Your task to perform on an android device: turn on translation in the chrome app Image 0: 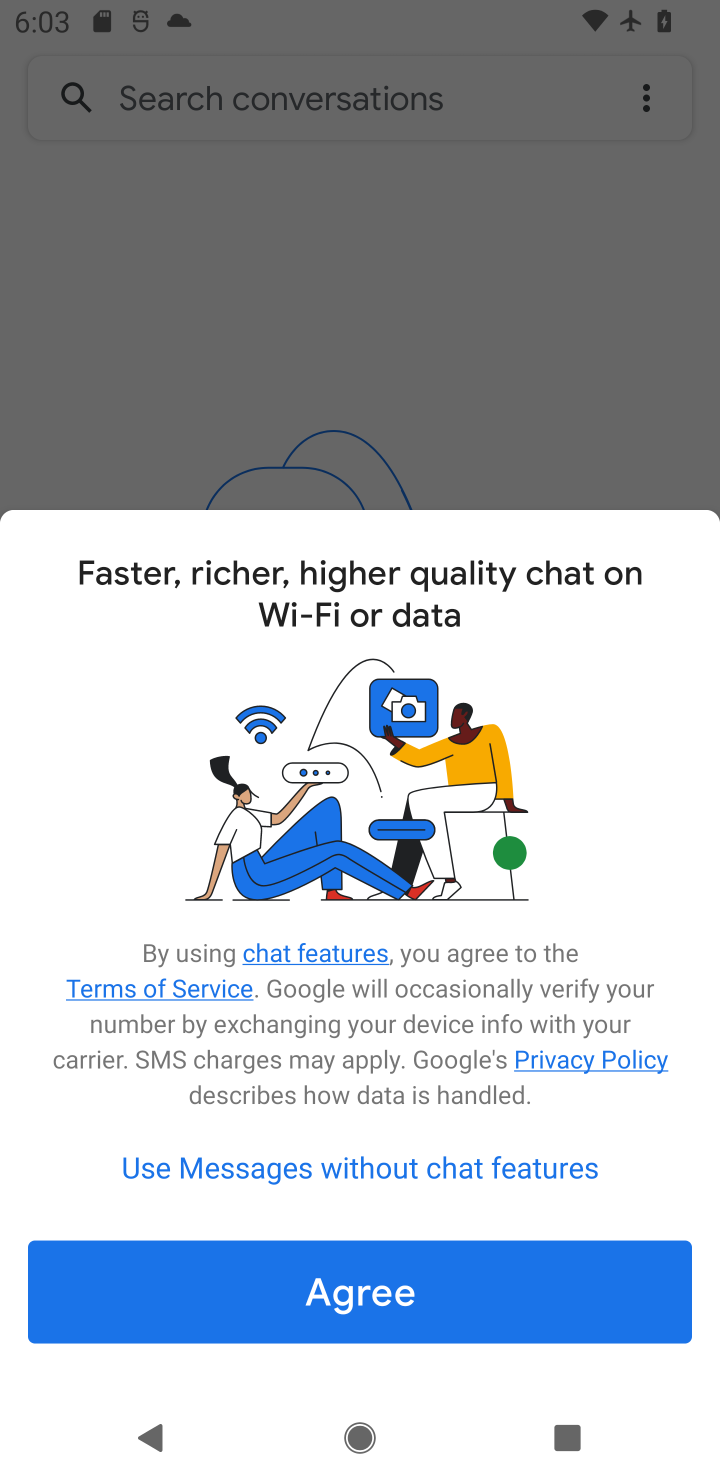
Step 0: press home button
Your task to perform on an android device: turn on translation in the chrome app Image 1: 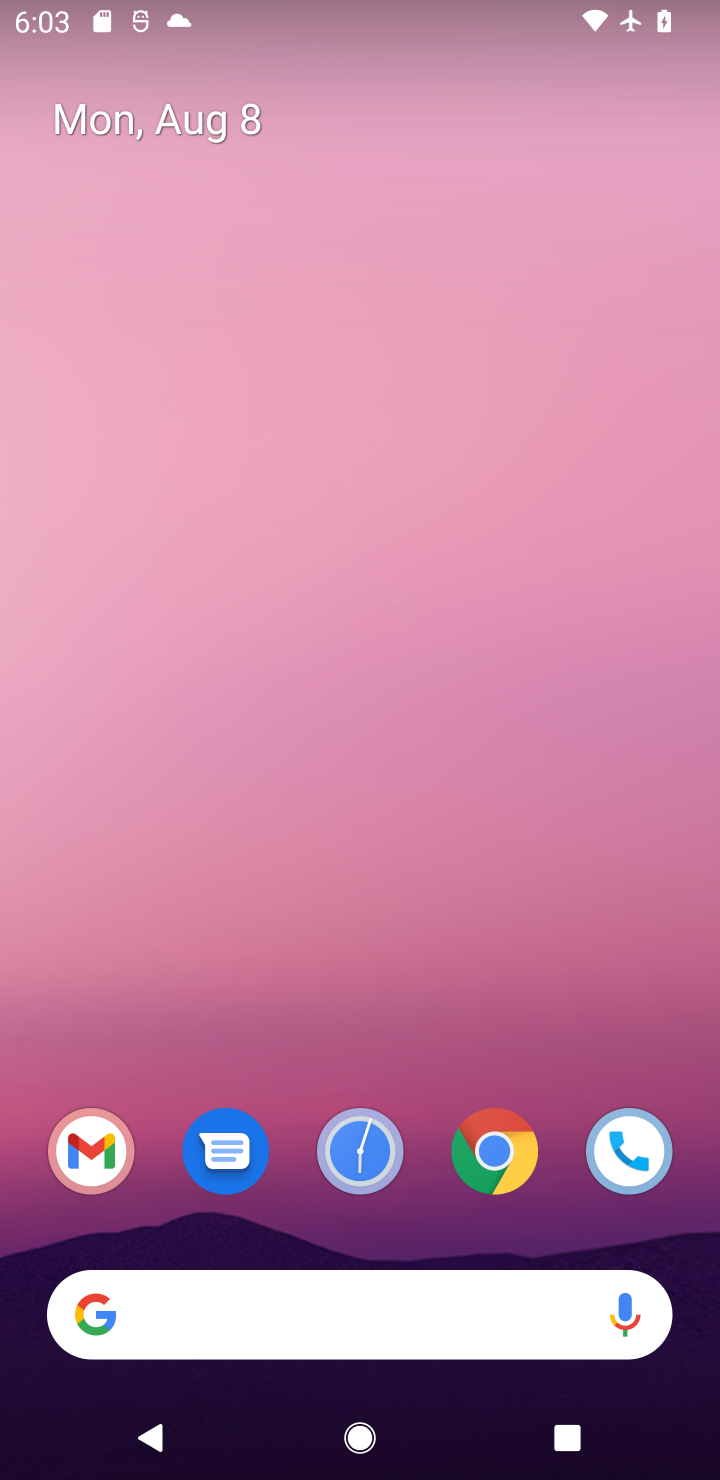
Step 1: click (474, 1168)
Your task to perform on an android device: turn on translation in the chrome app Image 2: 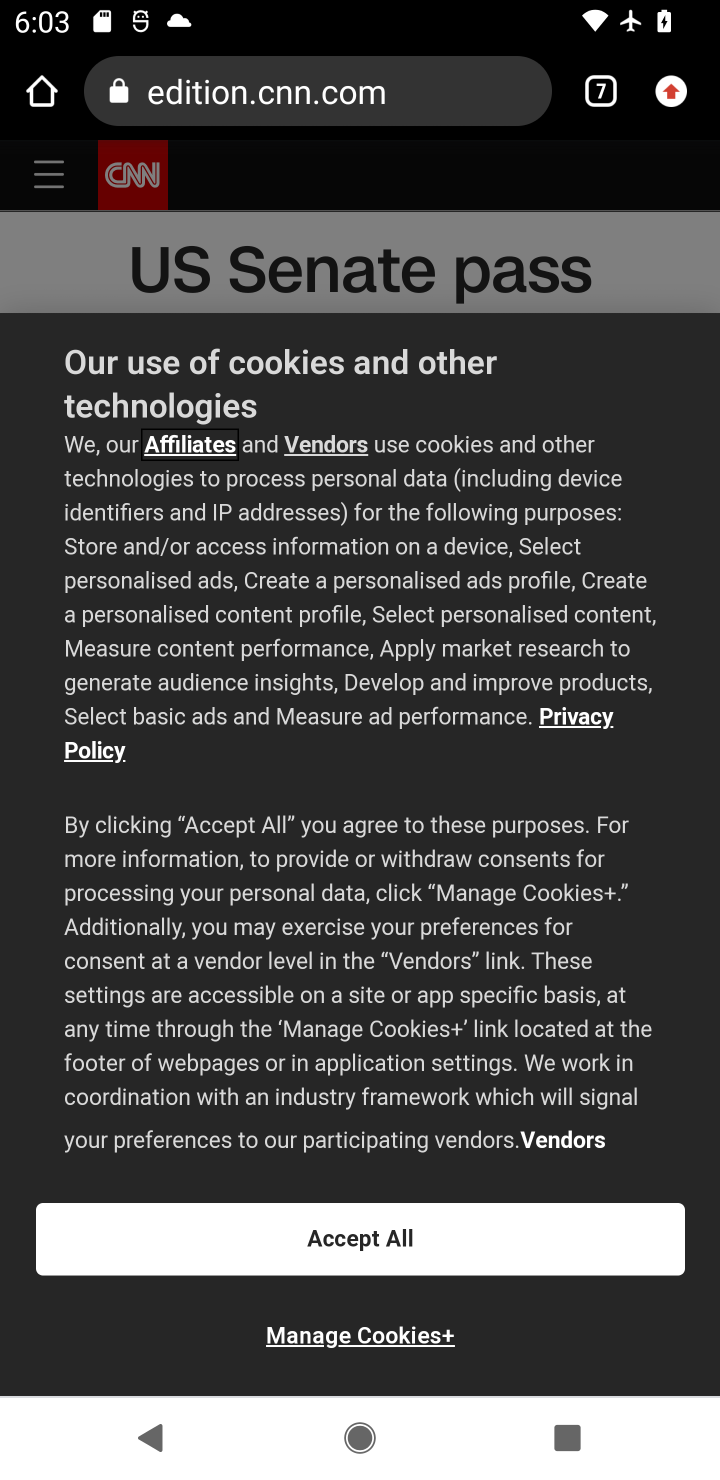
Step 2: click (677, 92)
Your task to perform on an android device: turn on translation in the chrome app Image 3: 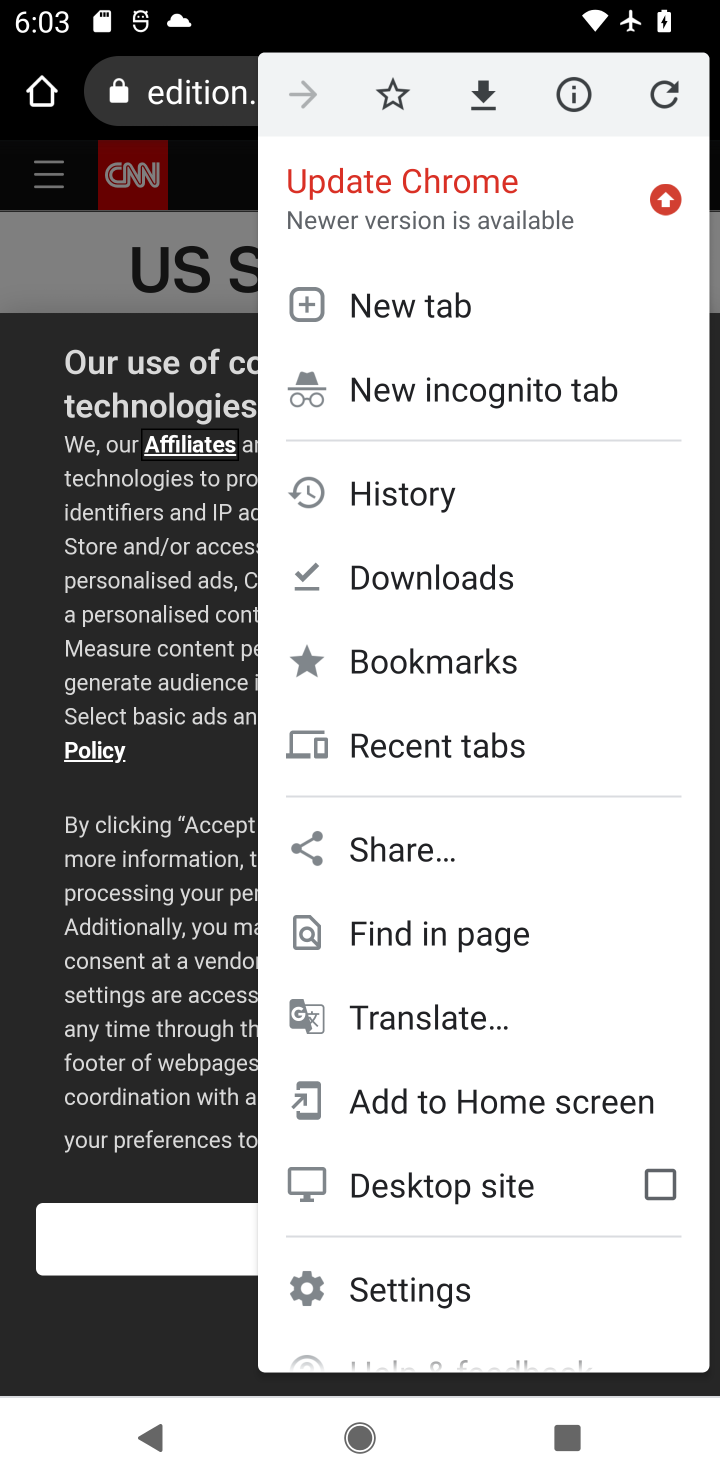
Step 3: click (422, 1305)
Your task to perform on an android device: turn on translation in the chrome app Image 4: 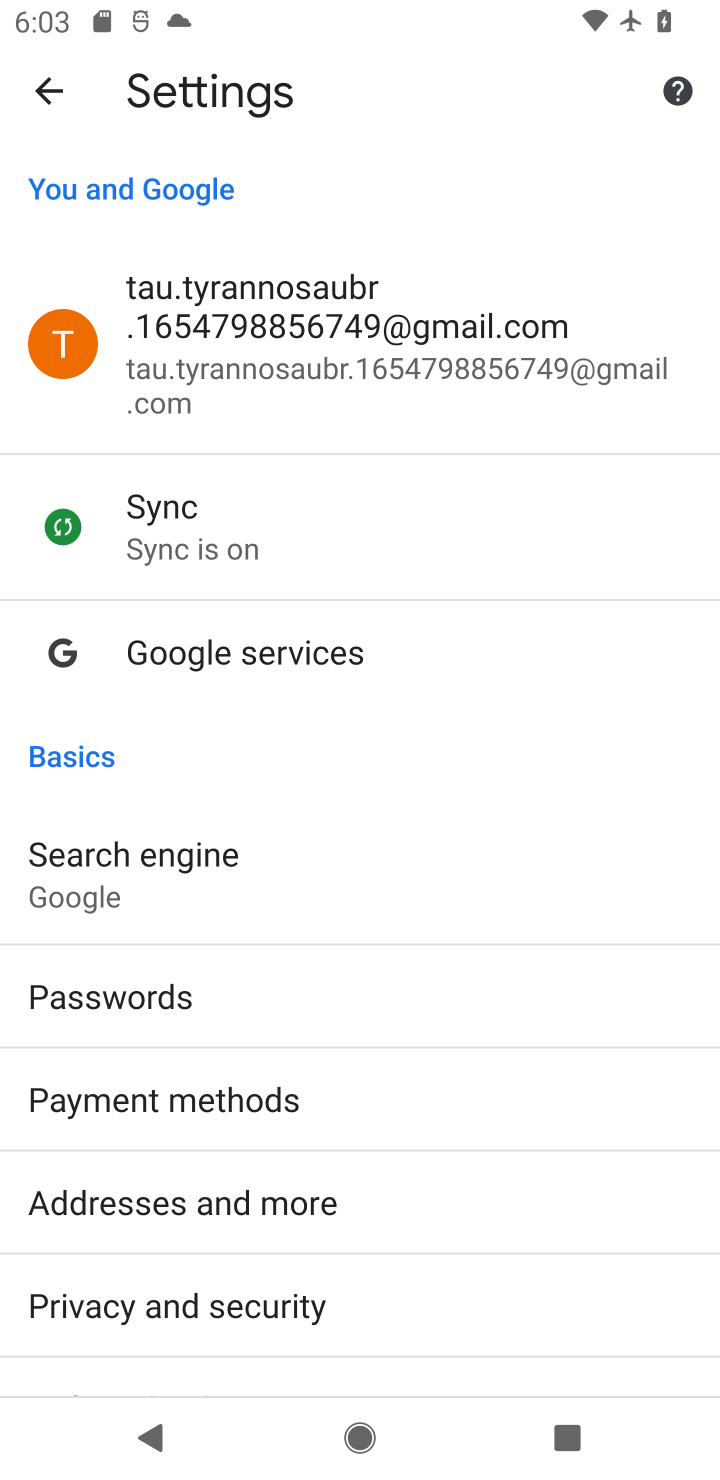
Step 4: drag from (254, 1207) to (264, 400)
Your task to perform on an android device: turn on translation in the chrome app Image 5: 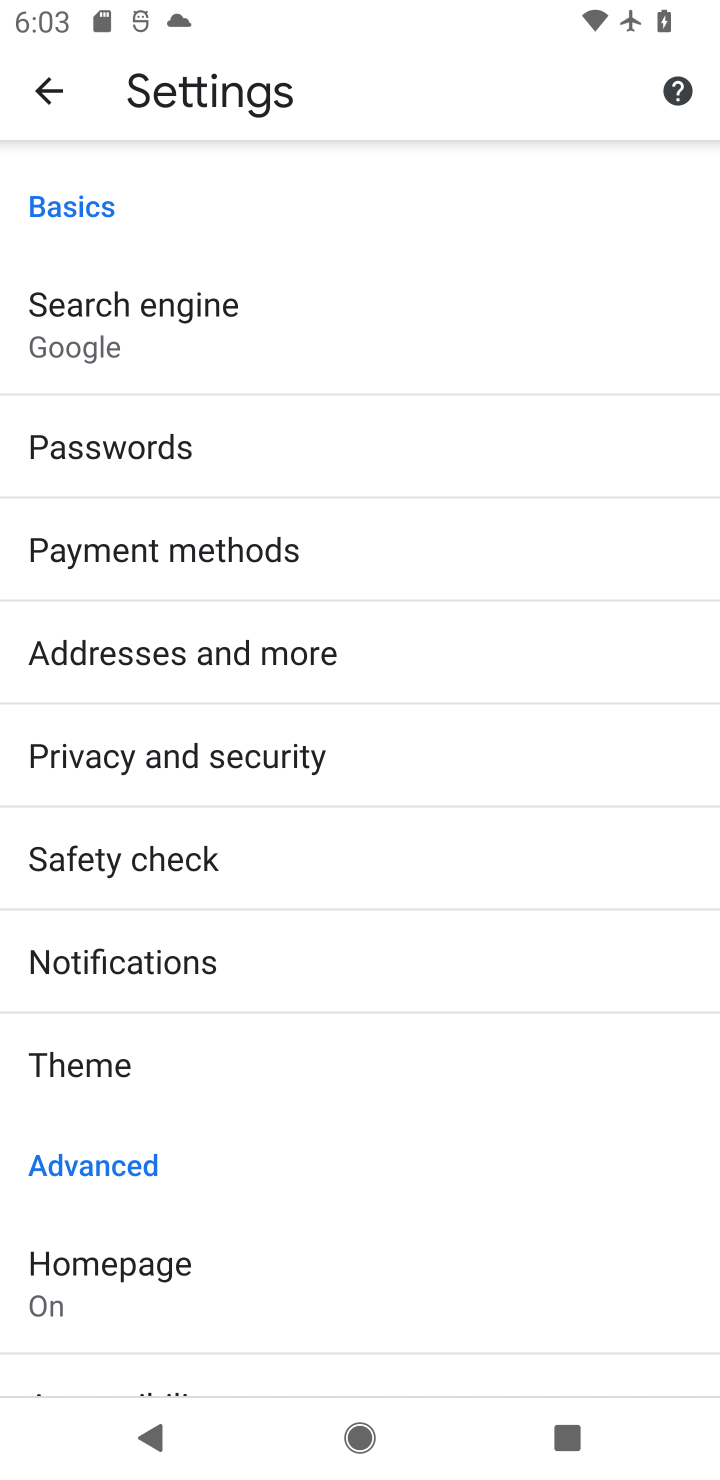
Step 5: drag from (217, 1031) to (264, 536)
Your task to perform on an android device: turn on translation in the chrome app Image 6: 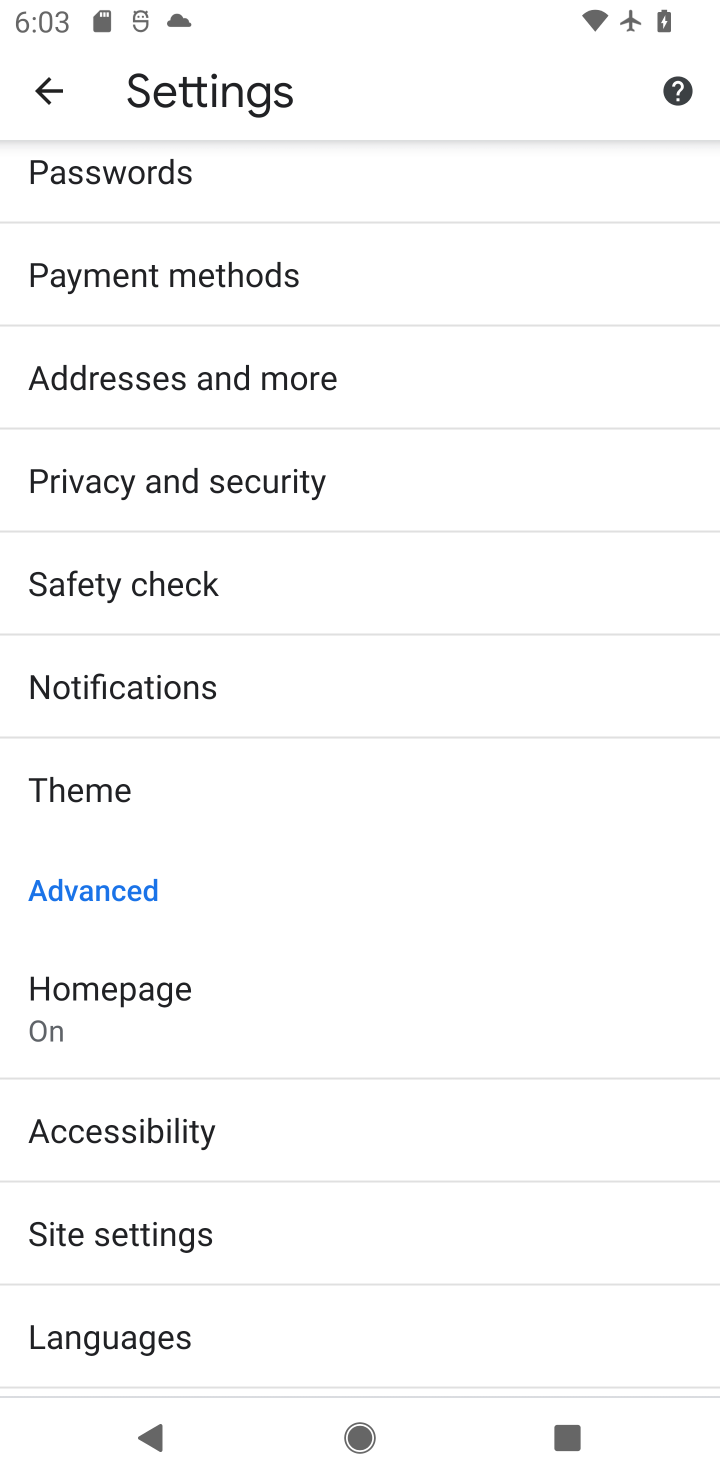
Step 6: click (222, 1336)
Your task to perform on an android device: turn on translation in the chrome app Image 7: 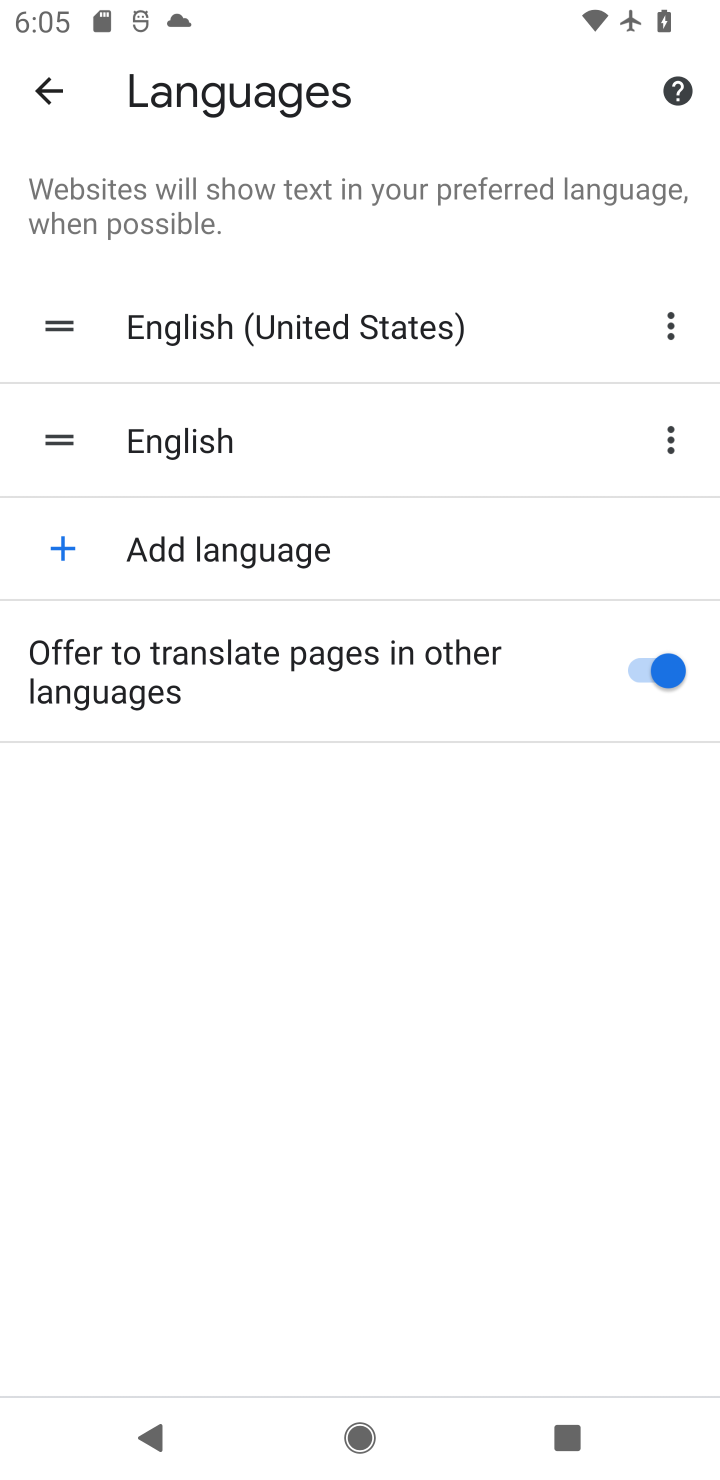
Step 7: task complete